Your task to perform on an android device: open app "Paramount+ | Peak Streaming" (install if not already installed) Image 0: 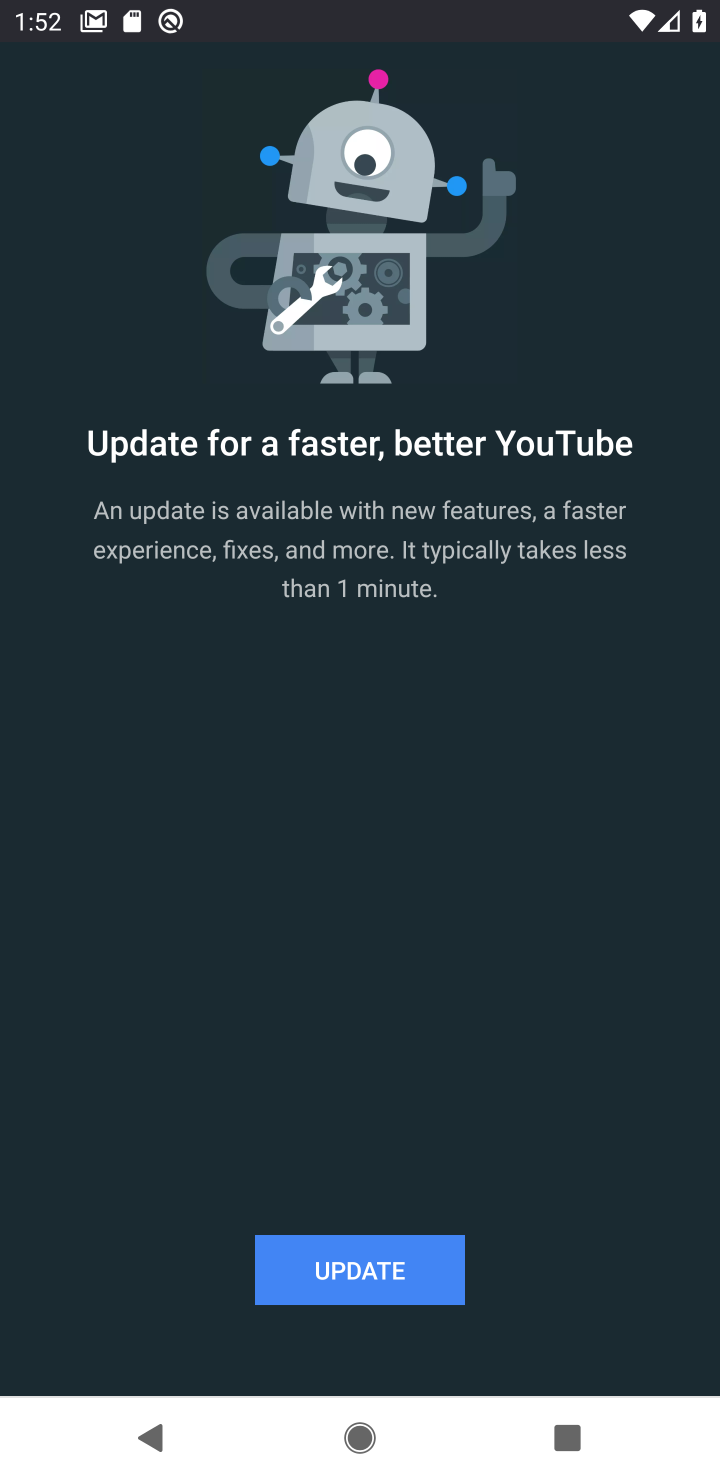
Step 0: press home button
Your task to perform on an android device: open app "Paramount+ | Peak Streaming" (install if not already installed) Image 1: 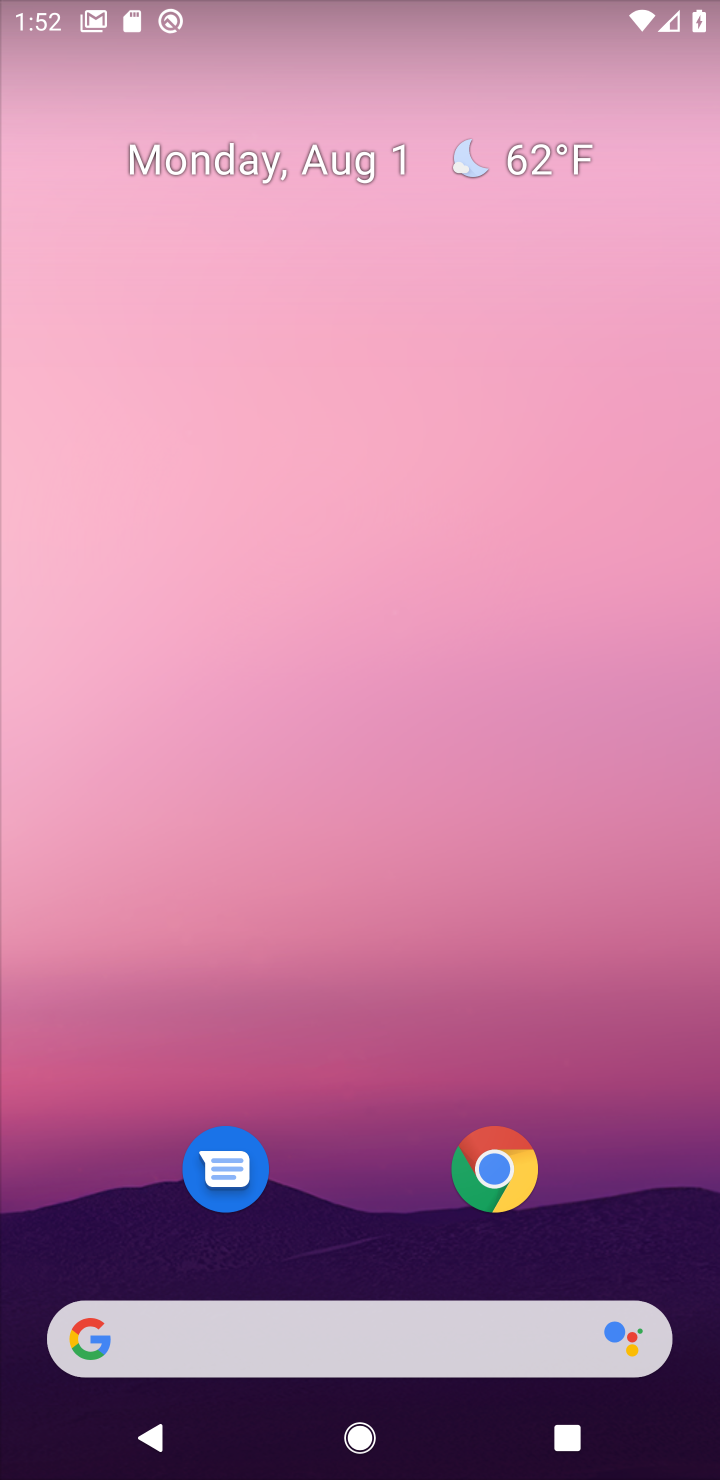
Step 1: drag from (356, 1024) to (333, 517)
Your task to perform on an android device: open app "Paramount+ | Peak Streaming" (install if not already installed) Image 2: 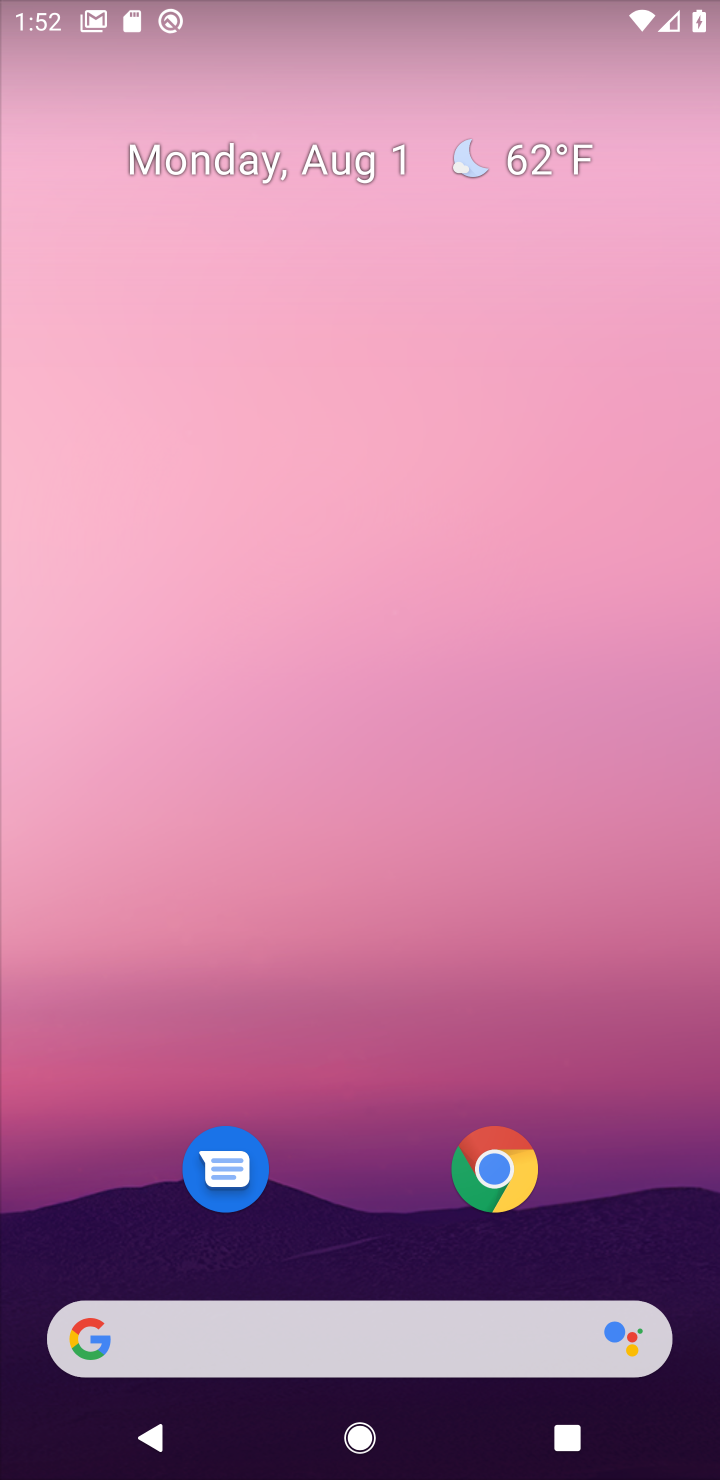
Step 2: drag from (292, 1079) to (364, 35)
Your task to perform on an android device: open app "Paramount+ | Peak Streaming" (install if not already installed) Image 3: 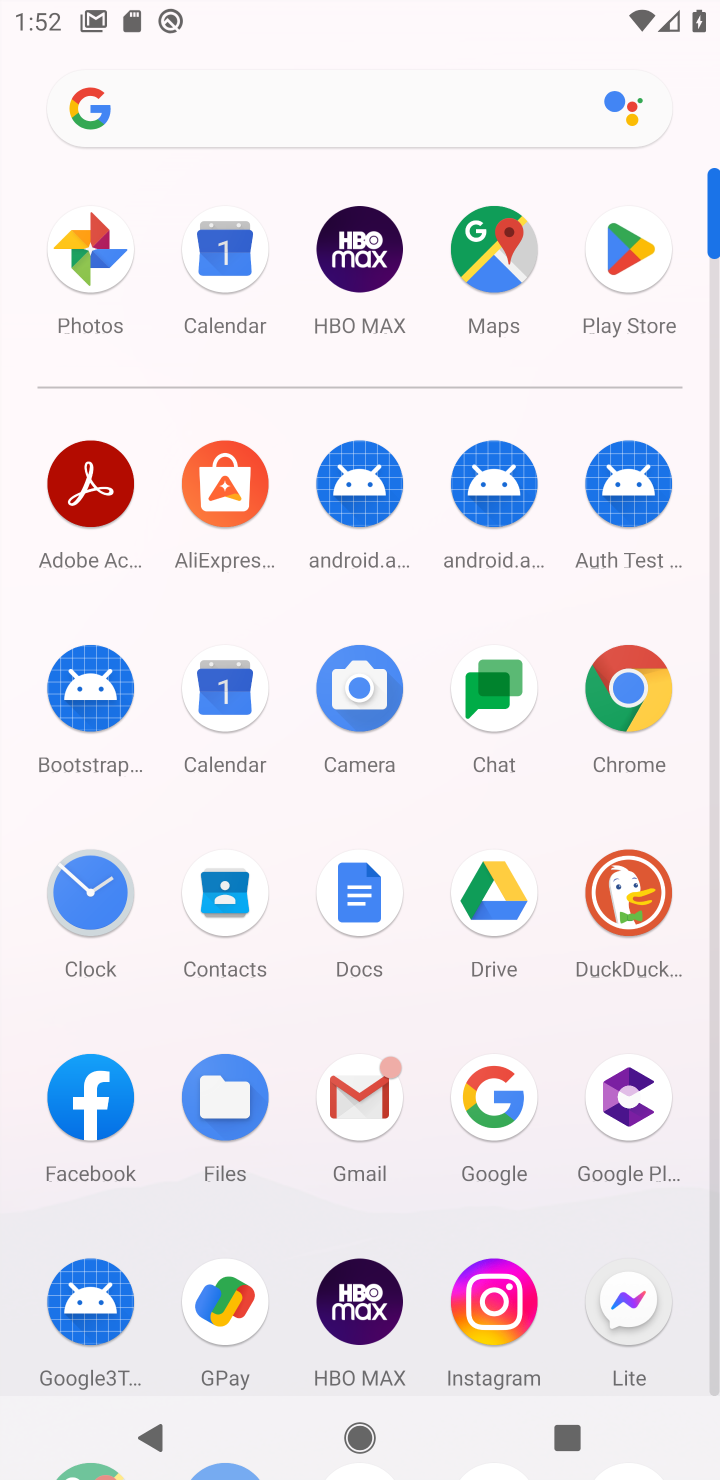
Step 3: click (627, 242)
Your task to perform on an android device: open app "Paramount+ | Peak Streaming" (install if not already installed) Image 4: 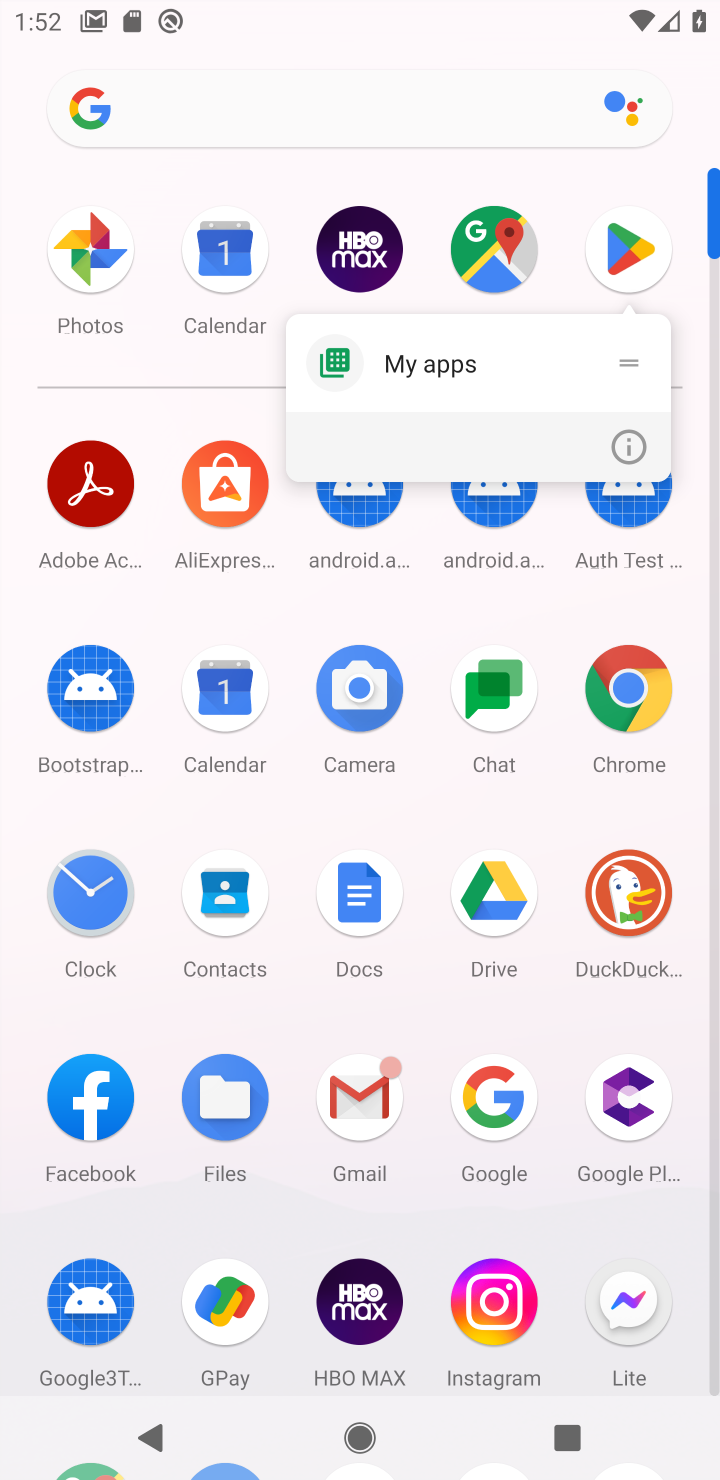
Step 4: click (614, 266)
Your task to perform on an android device: open app "Paramount+ | Peak Streaming" (install if not already installed) Image 5: 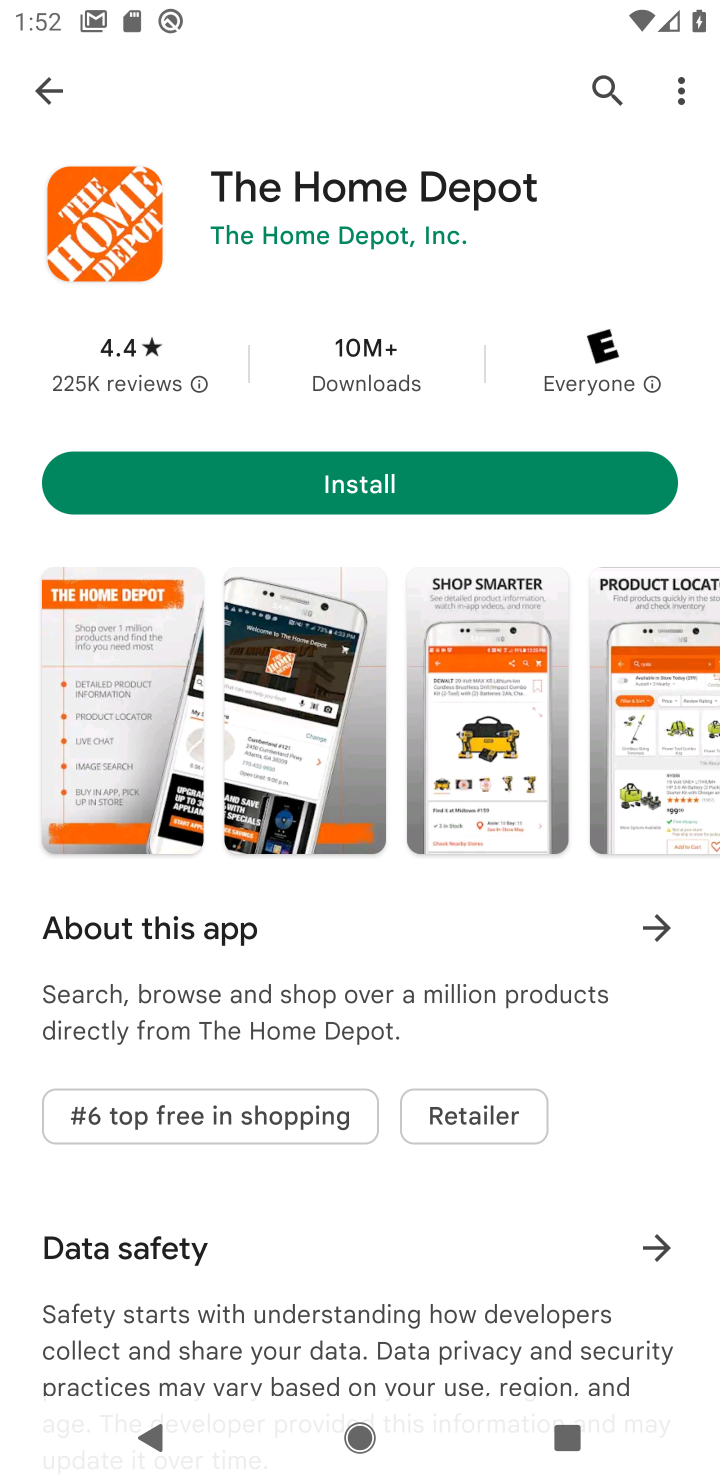
Step 5: click (53, 92)
Your task to perform on an android device: open app "Paramount+ | Peak Streaming" (install if not already installed) Image 6: 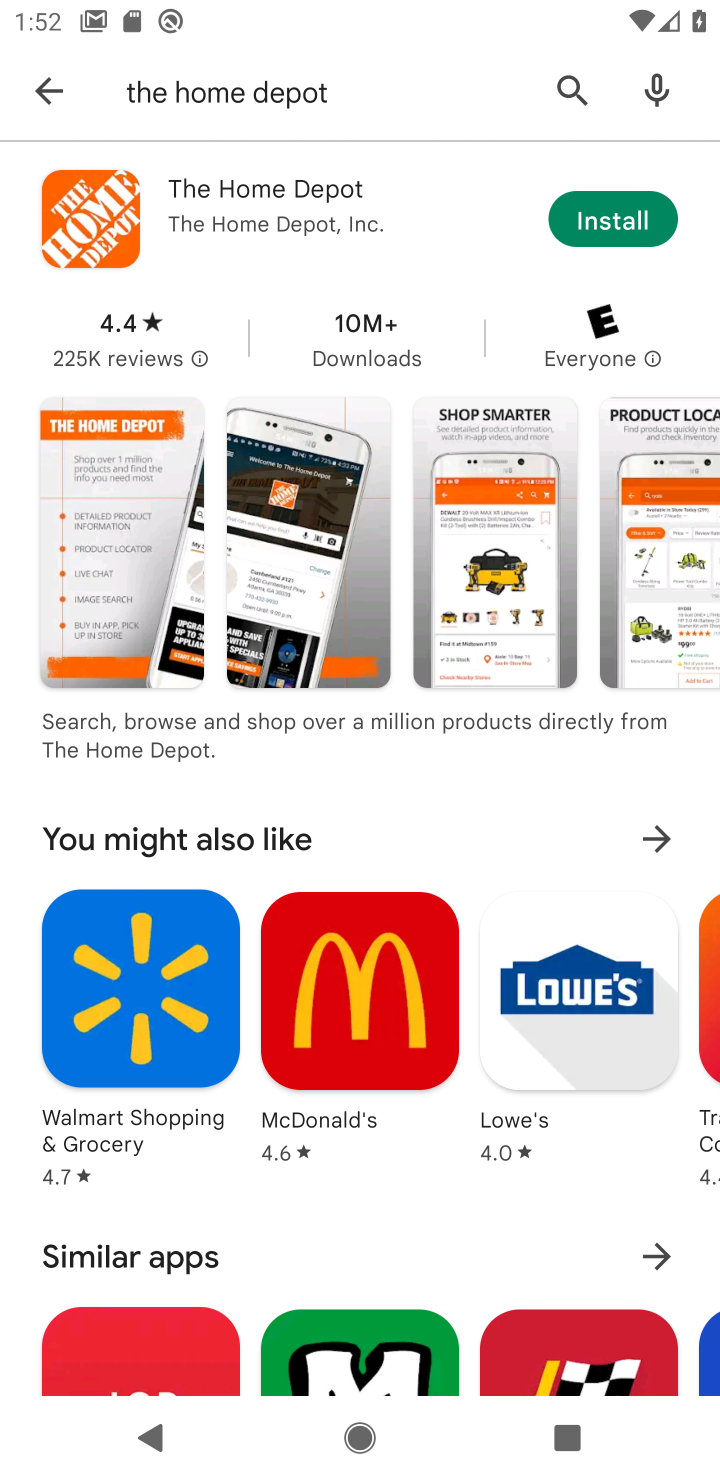
Step 6: click (53, 92)
Your task to perform on an android device: open app "Paramount+ | Peak Streaming" (install if not already installed) Image 7: 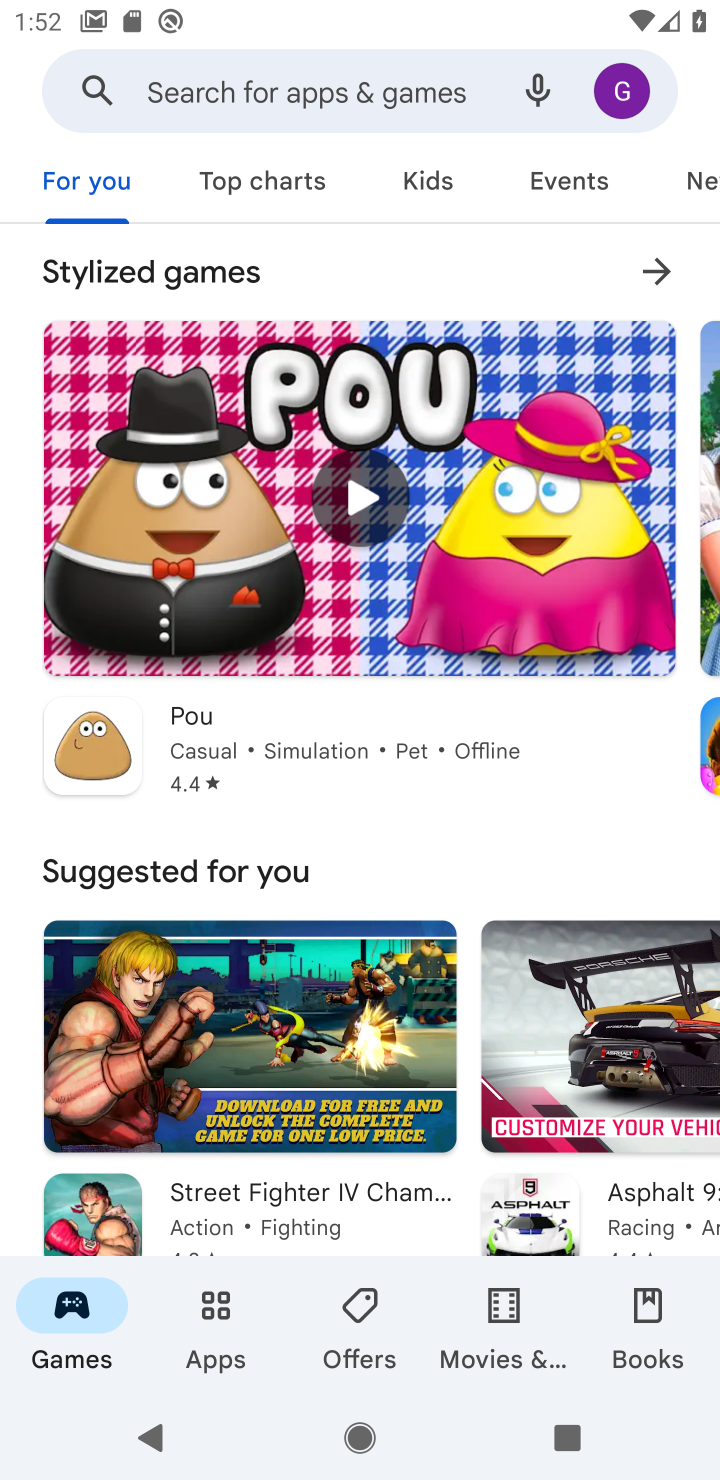
Step 7: click (263, 98)
Your task to perform on an android device: open app "Paramount+ | Peak Streaming" (install if not already installed) Image 8: 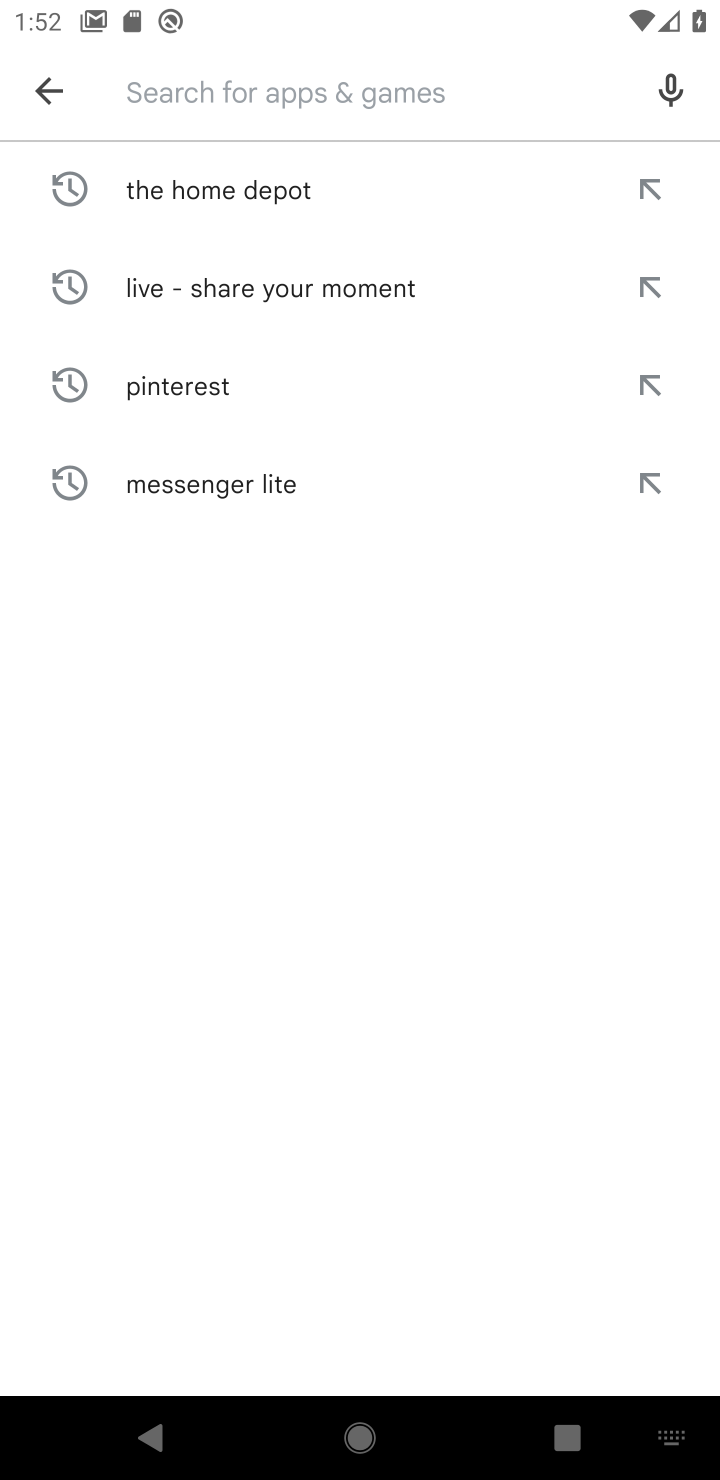
Step 8: type "Paramount+ | Peak Streaming"
Your task to perform on an android device: open app "Paramount+ | Peak Streaming" (install if not already installed) Image 9: 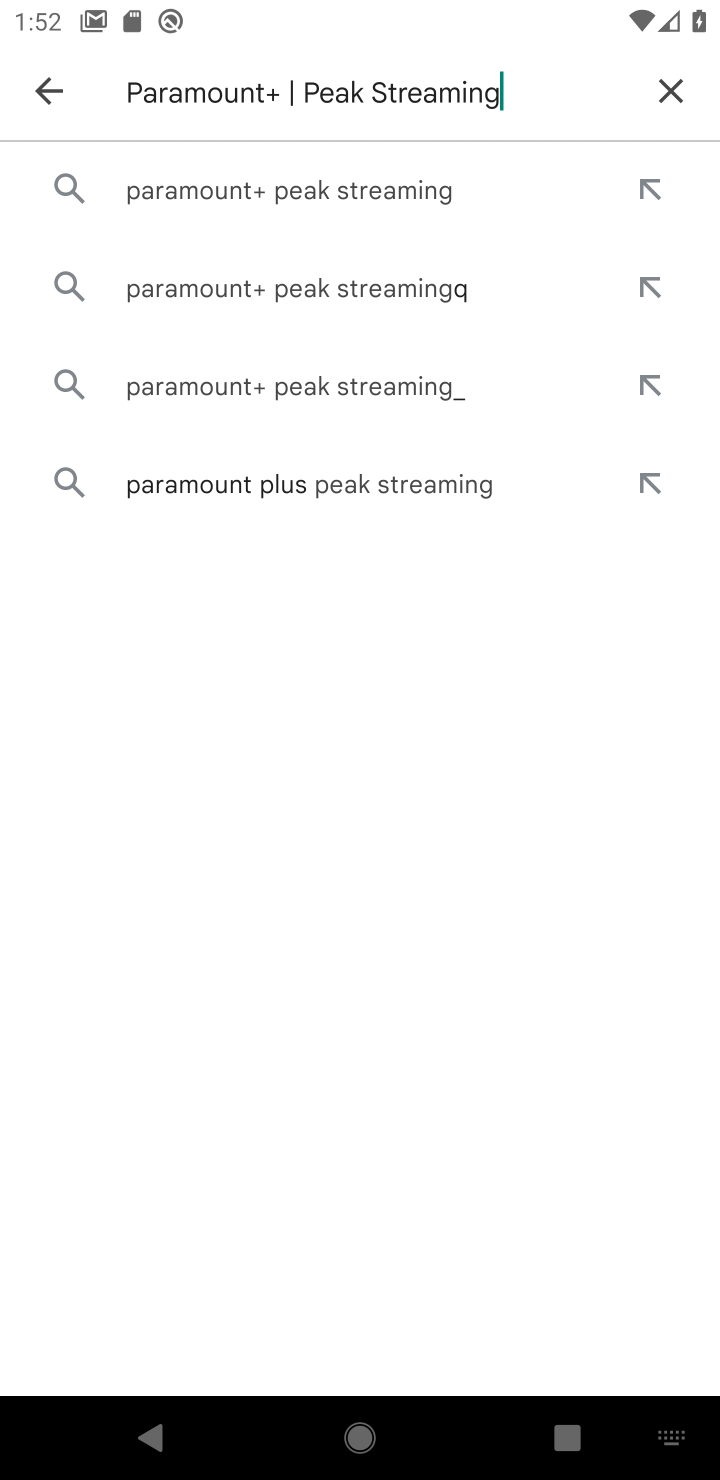
Step 9: click (255, 194)
Your task to perform on an android device: open app "Paramount+ | Peak Streaming" (install if not already installed) Image 10: 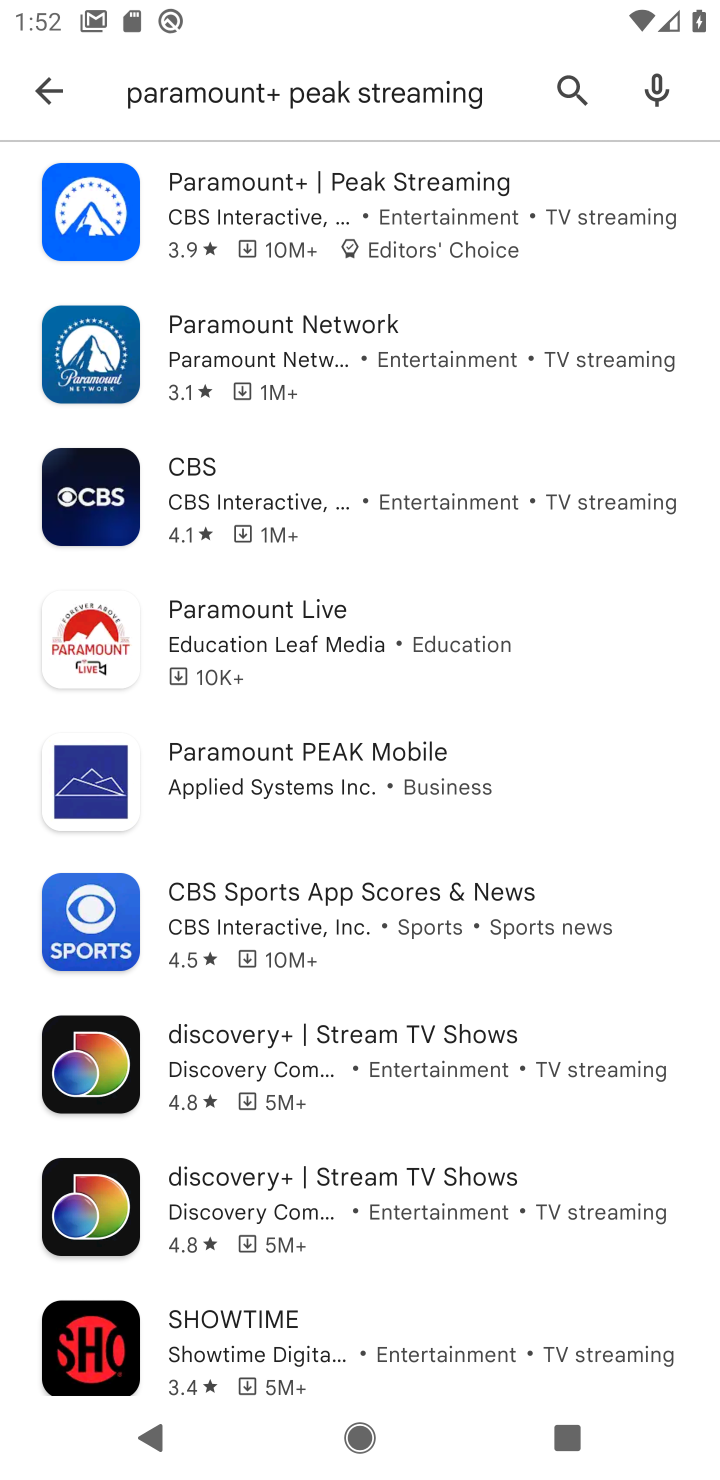
Step 10: click (321, 226)
Your task to perform on an android device: open app "Paramount+ | Peak Streaming" (install if not already installed) Image 11: 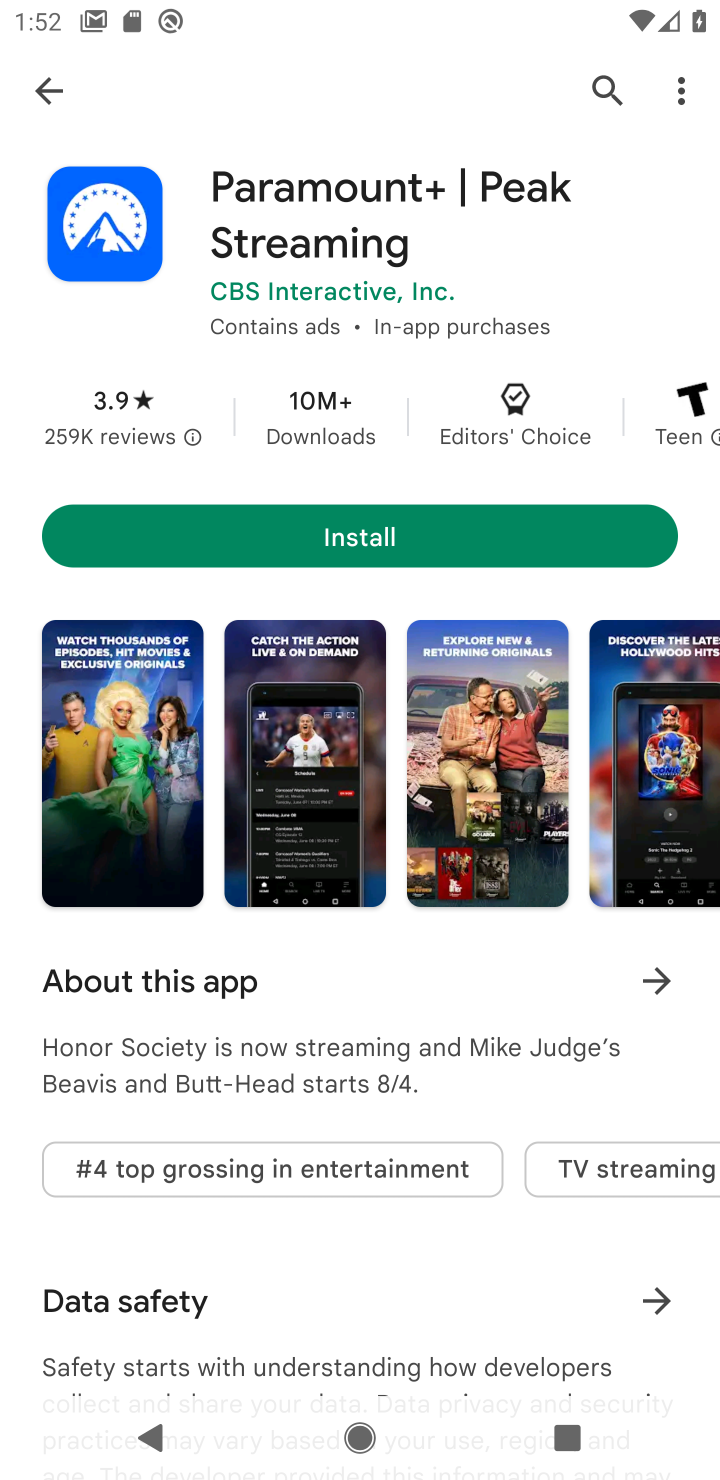
Step 11: click (346, 541)
Your task to perform on an android device: open app "Paramount+ | Peak Streaming" (install if not already installed) Image 12: 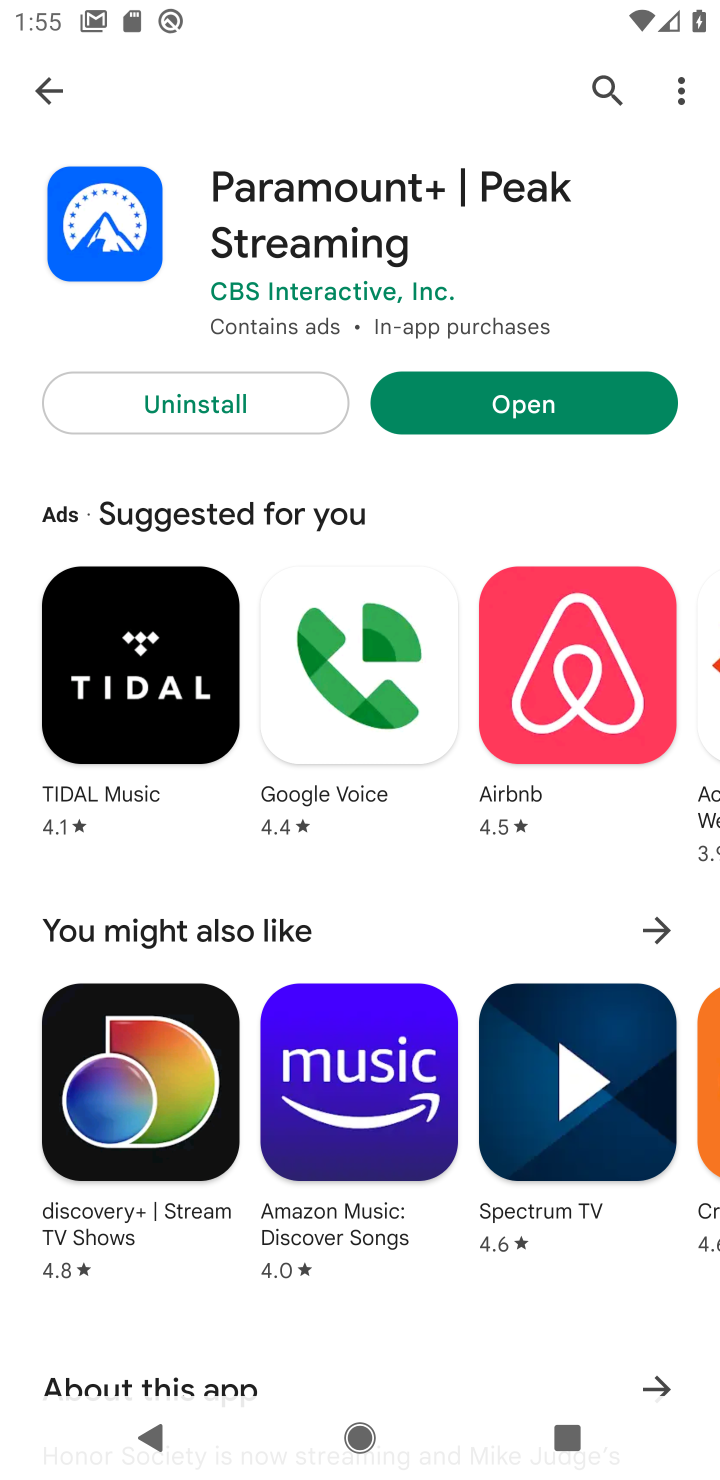
Step 12: click (605, 425)
Your task to perform on an android device: open app "Paramount+ | Peak Streaming" (install if not already installed) Image 13: 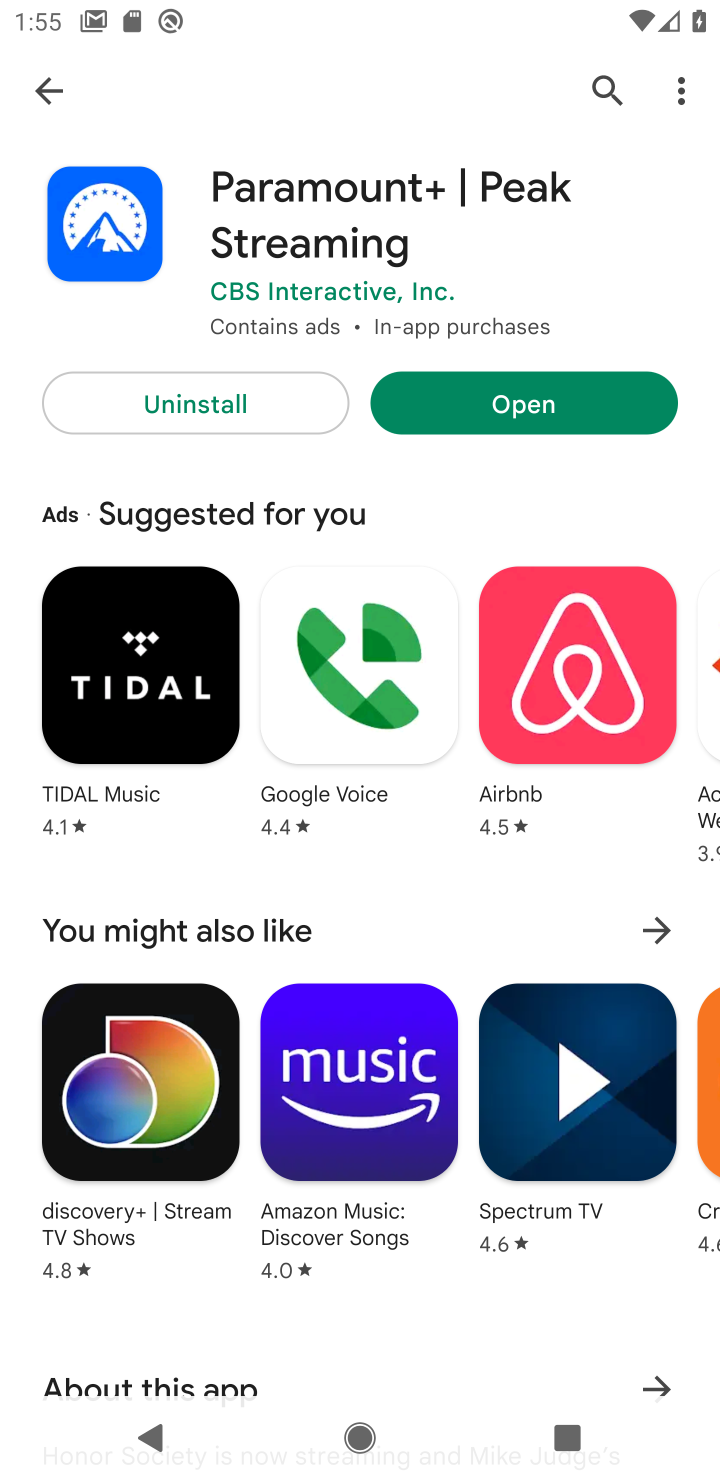
Step 13: task complete